Your task to perform on an android device: Open Google Chrome and open the bookmarks view Image 0: 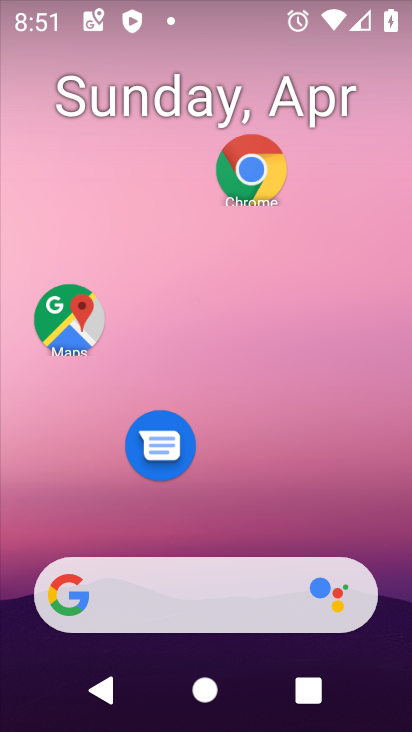
Step 0: click (244, 170)
Your task to perform on an android device: Open Google Chrome and open the bookmarks view Image 1: 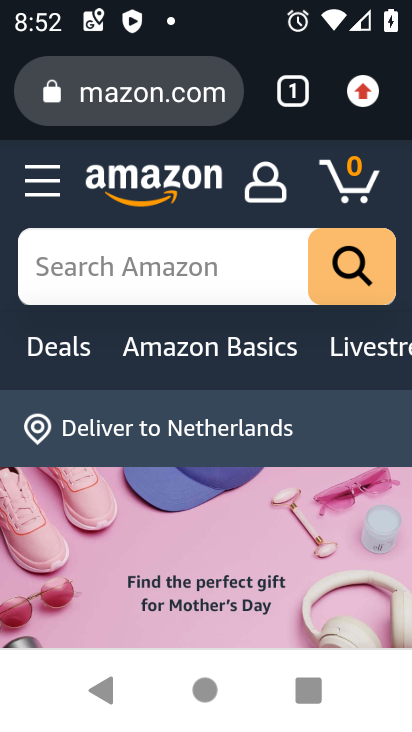
Step 1: click (368, 90)
Your task to perform on an android device: Open Google Chrome and open the bookmarks view Image 2: 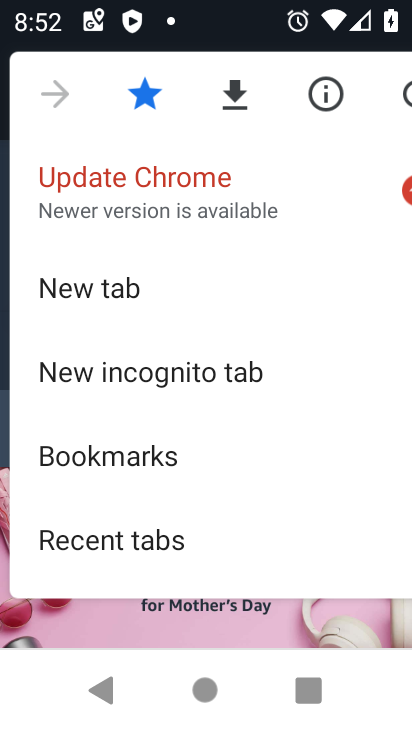
Step 2: click (155, 450)
Your task to perform on an android device: Open Google Chrome and open the bookmarks view Image 3: 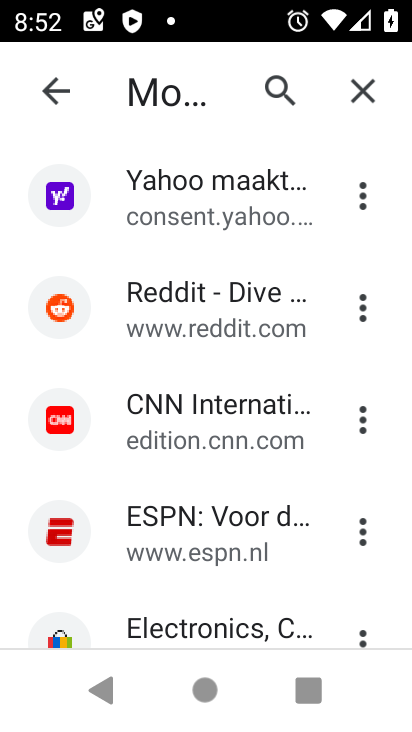
Step 3: click (217, 209)
Your task to perform on an android device: Open Google Chrome and open the bookmarks view Image 4: 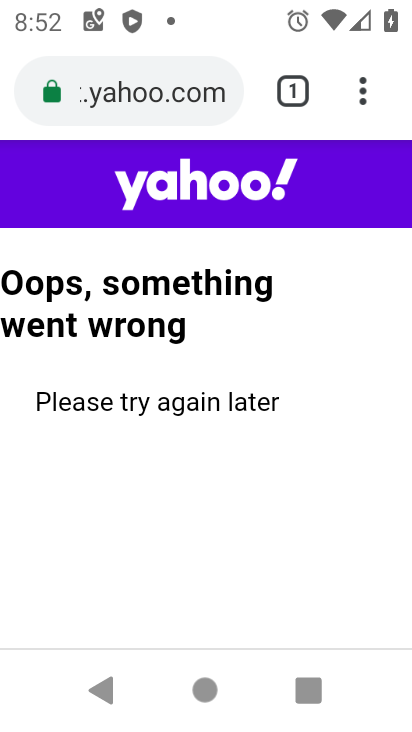
Step 4: task complete